Your task to perform on an android device: Open calendar and show me the first week of next month Image 0: 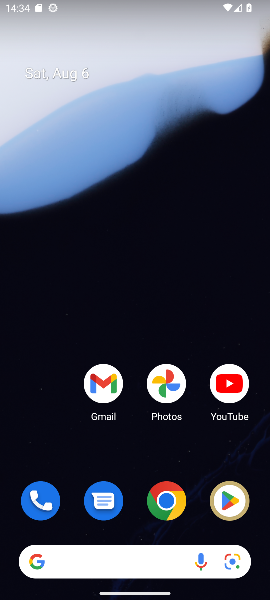
Step 0: press home button
Your task to perform on an android device: Open calendar and show me the first week of next month Image 1: 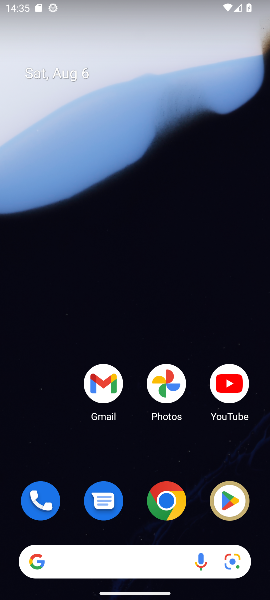
Step 1: drag from (134, 531) to (134, 195)
Your task to perform on an android device: Open calendar and show me the first week of next month Image 2: 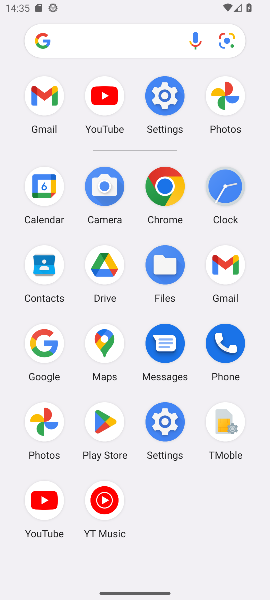
Step 2: click (39, 190)
Your task to perform on an android device: Open calendar and show me the first week of next month Image 3: 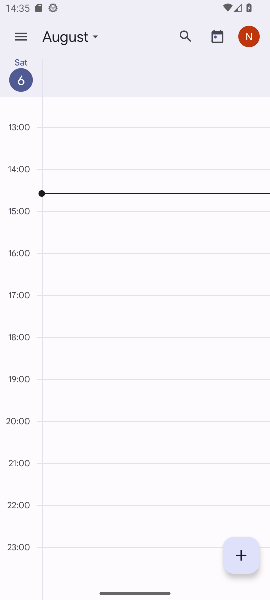
Step 3: click (71, 40)
Your task to perform on an android device: Open calendar and show me the first week of next month Image 4: 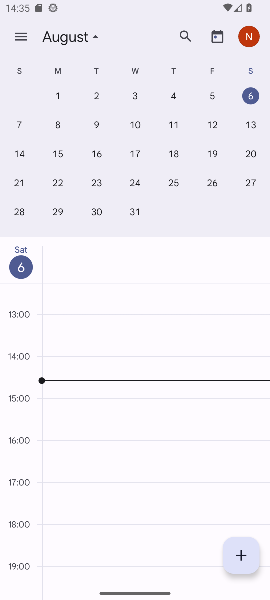
Step 4: drag from (193, 155) to (31, 152)
Your task to perform on an android device: Open calendar and show me the first week of next month Image 5: 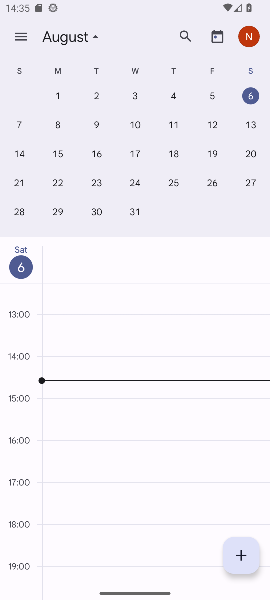
Step 5: drag from (210, 129) to (64, 137)
Your task to perform on an android device: Open calendar and show me the first week of next month Image 6: 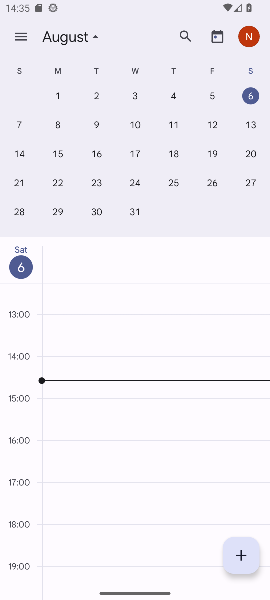
Step 6: drag from (213, 145) to (1, 163)
Your task to perform on an android device: Open calendar and show me the first week of next month Image 7: 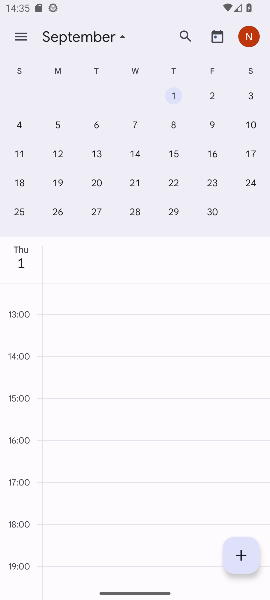
Step 7: click (212, 95)
Your task to perform on an android device: Open calendar and show me the first week of next month Image 8: 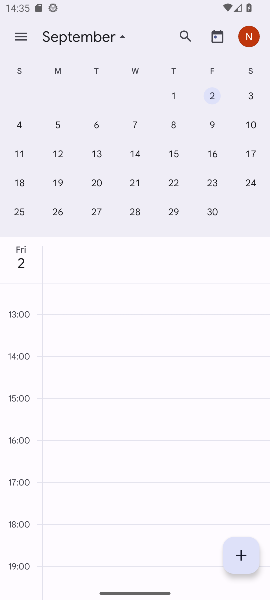
Step 8: click (244, 103)
Your task to perform on an android device: Open calendar and show me the first week of next month Image 9: 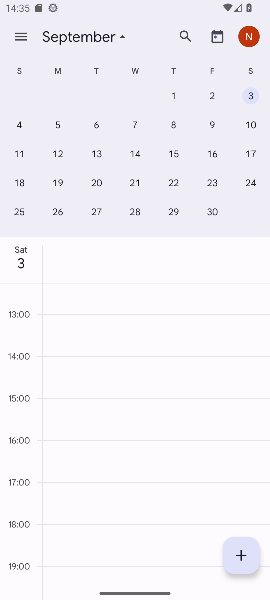
Step 9: click (29, 128)
Your task to perform on an android device: Open calendar and show me the first week of next month Image 10: 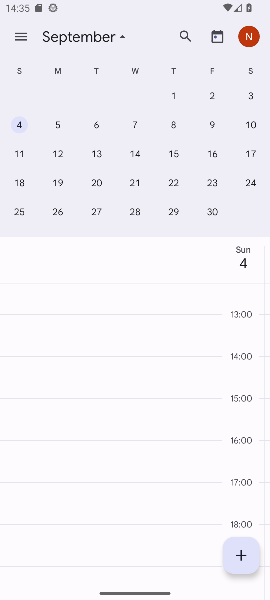
Step 10: click (63, 130)
Your task to perform on an android device: Open calendar and show me the first week of next month Image 11: 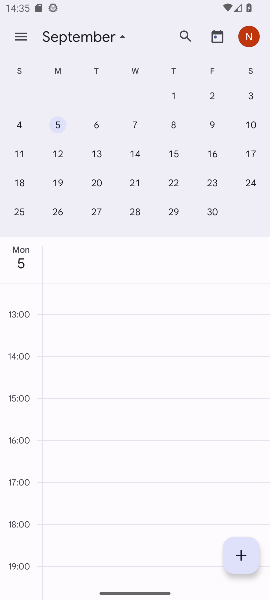
Step 11: click (96, 132)
Your task to perform on an android device: Open calendar and show me the first week of next month Image 12: 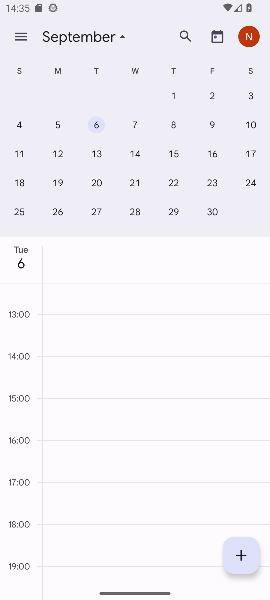
Step 12: click (128, 133)
Your task to perform on an android device: Open calendar and show me the first week of next month Image 13: 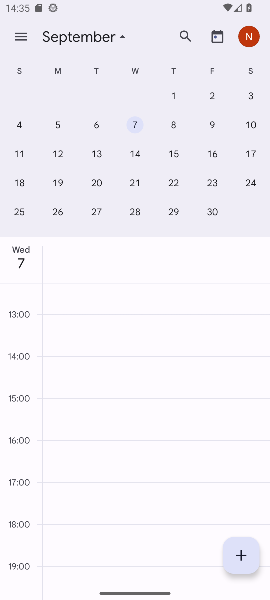
Step 13: task complete